Your task to perform on an android device: Is it going to rain today? Image 0: 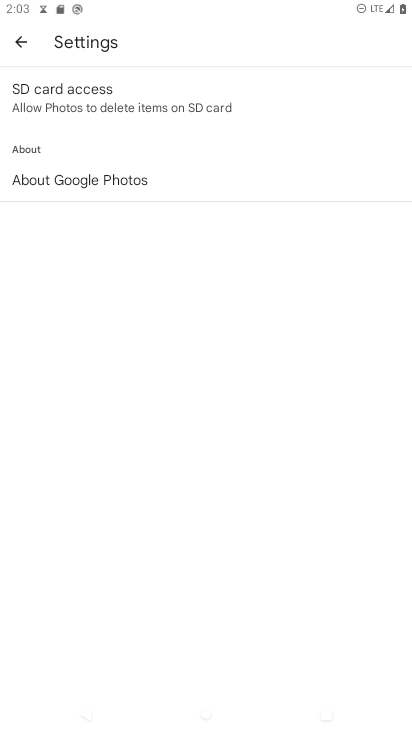
Step 0: press home button
Your task to perform on an android device: Is it going to rain today? Image 1: 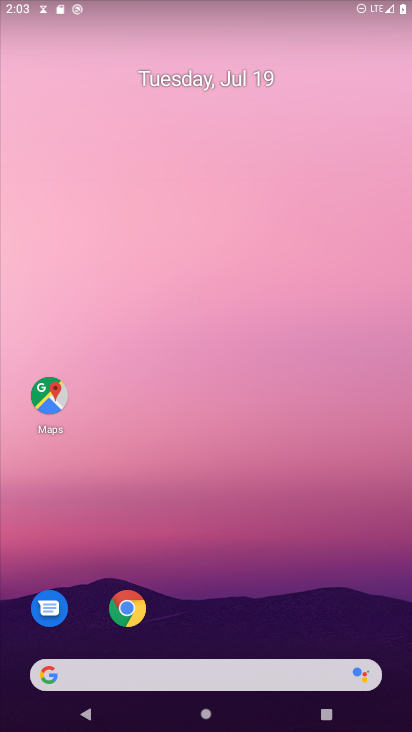
Step 1: drag from (285, 627) to (310, 30)
Your task to perform on an android device: Is it going to rain today? Image 2: 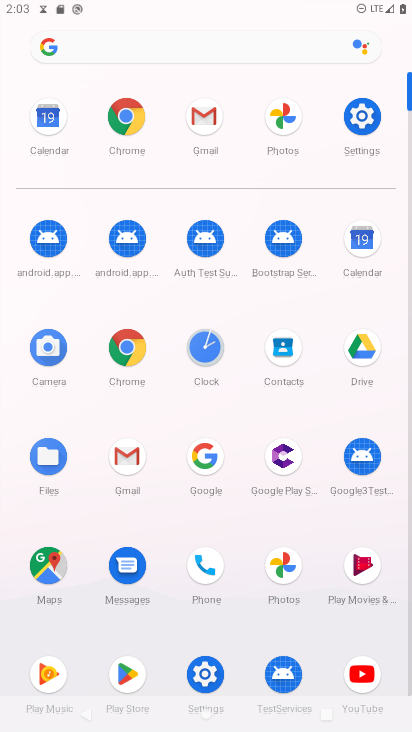
Step 2: click (124, 366)
Your task to perform on an android device: Is it going to rain today? Image 3: 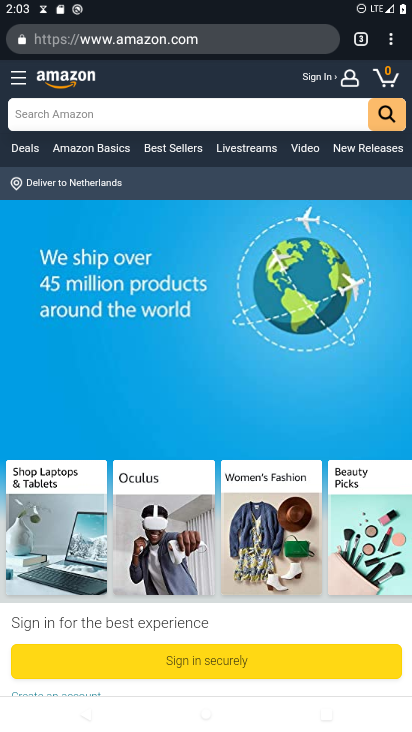
Step 3: click (190, 31)
Your task to perform on an android device: Is it going to rain today? Image 4: 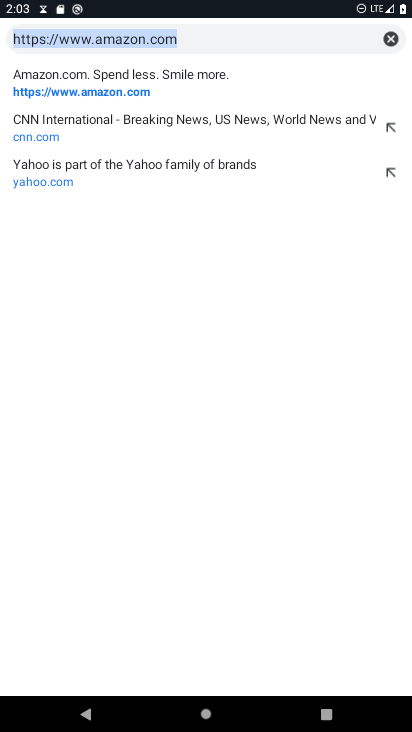
Step 4: type "going to rain today"
Your task to perform on an android device: Is it going to rain today? Image 5: 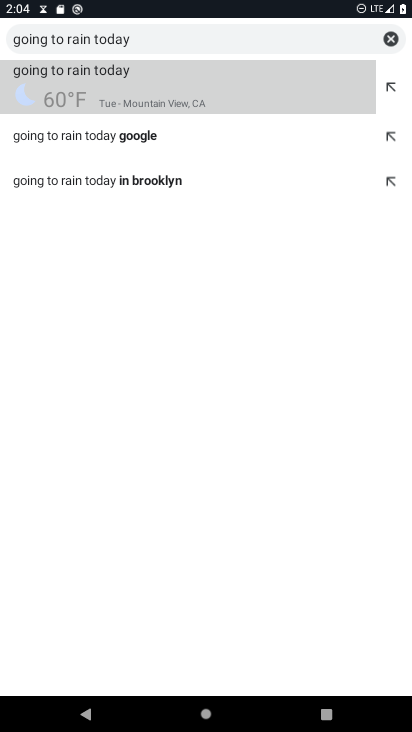
Step 5: click (240, 98)
Your task to perform on an android device: Is it going to rain today? Image 6: 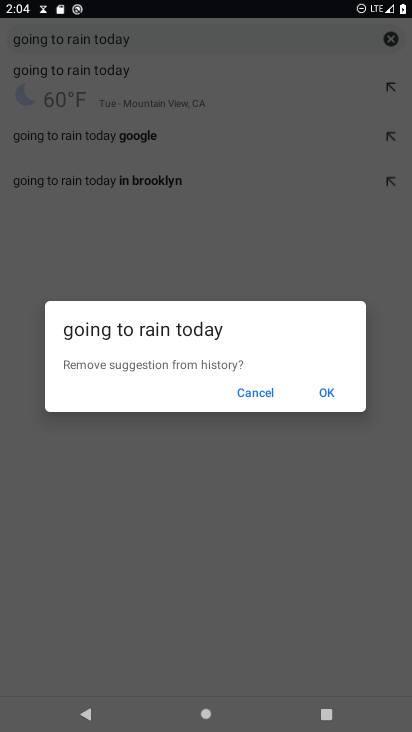
Step 6: click (269, 394)
Your task to perform on an android device: Is it going to rain today? Image 7: 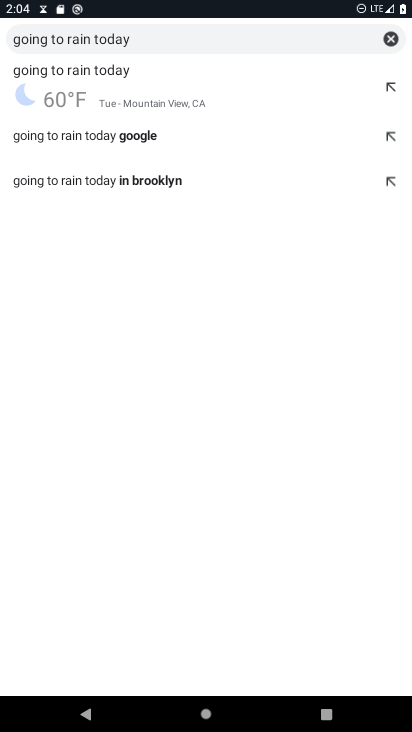
Step 7: click (92, 72)
Your task to perform on an android device: Is it going to rain today? Image 8: 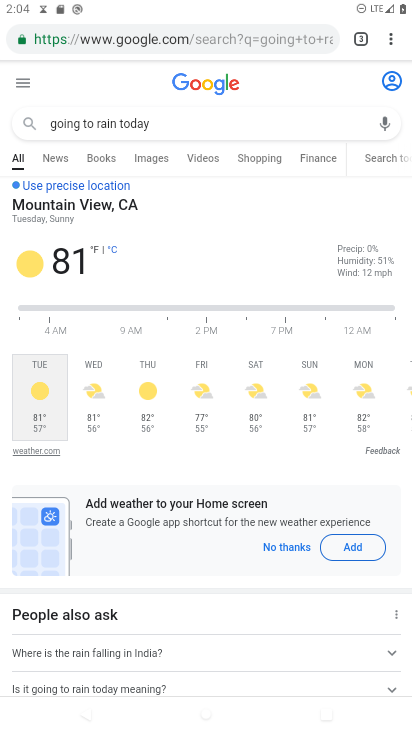
Step 8: task complete